Your task to perform on an android device: Open Chrome and go to settings Image 0: 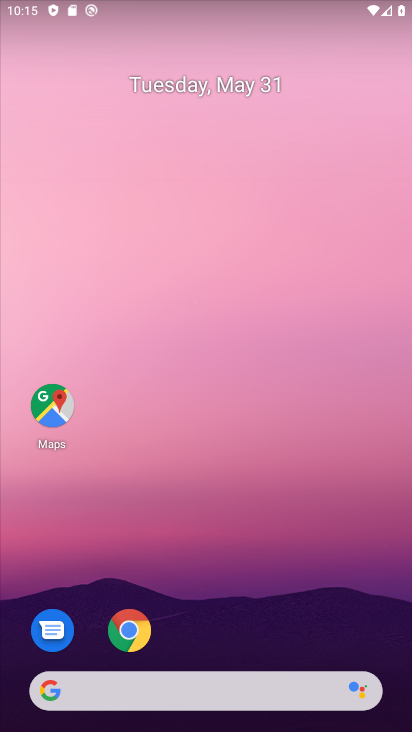
Step 0: click (132, 626)
Your task to perform on an android device: Open Chrome and go to settings Image 1: 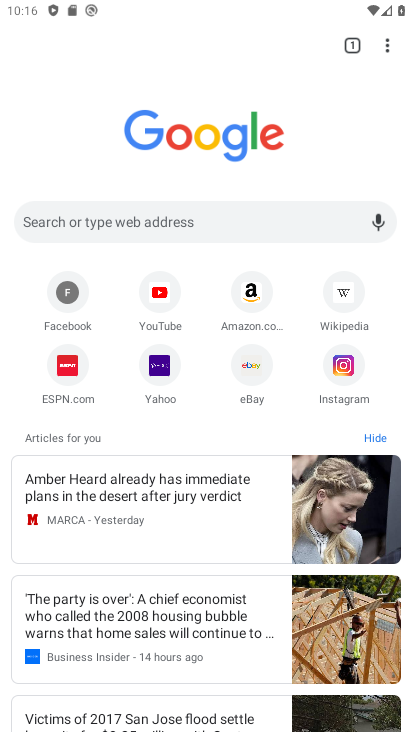
Step 1: task complete